Your task to perform on an android device: all mails in gmail Image 0: 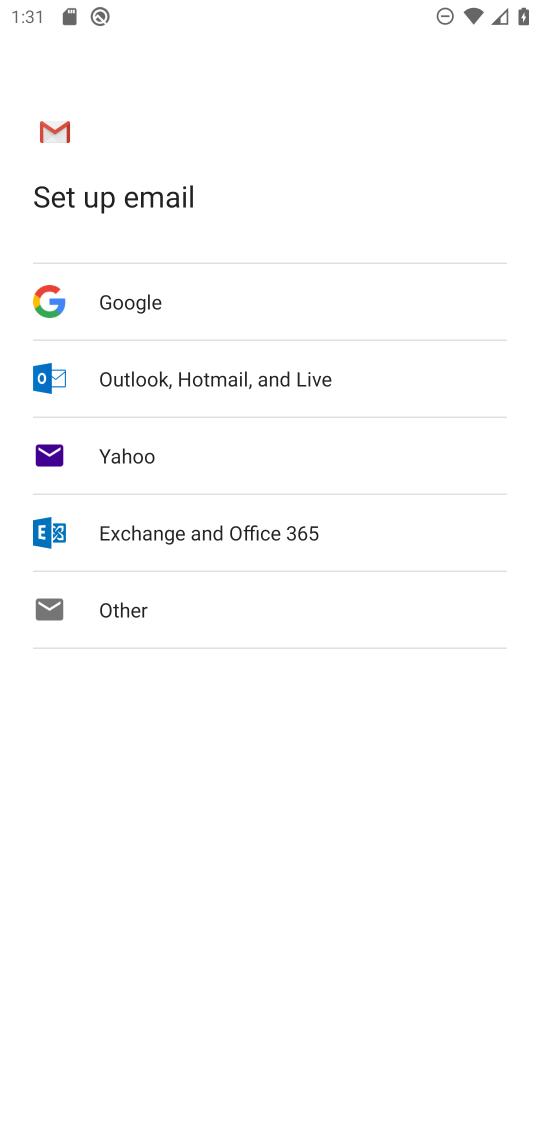
Step 0: press back button
Your task to perform on an android device: all mails in gmail Image 1: 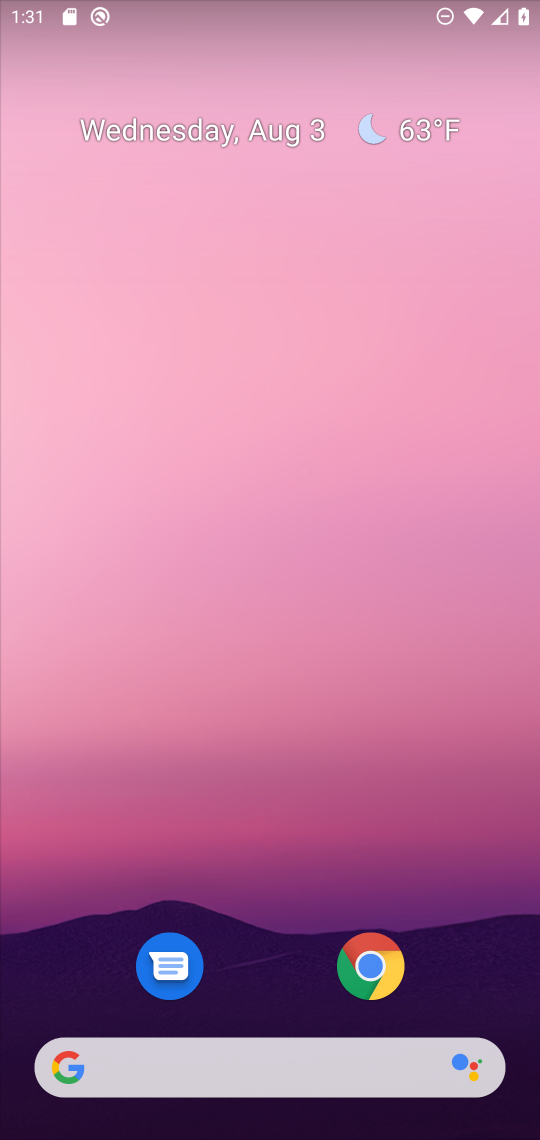
Step 1: drag from (269, 968) to (280, 345)
Your task to perform on an android device: all mails in gmail Image 2: 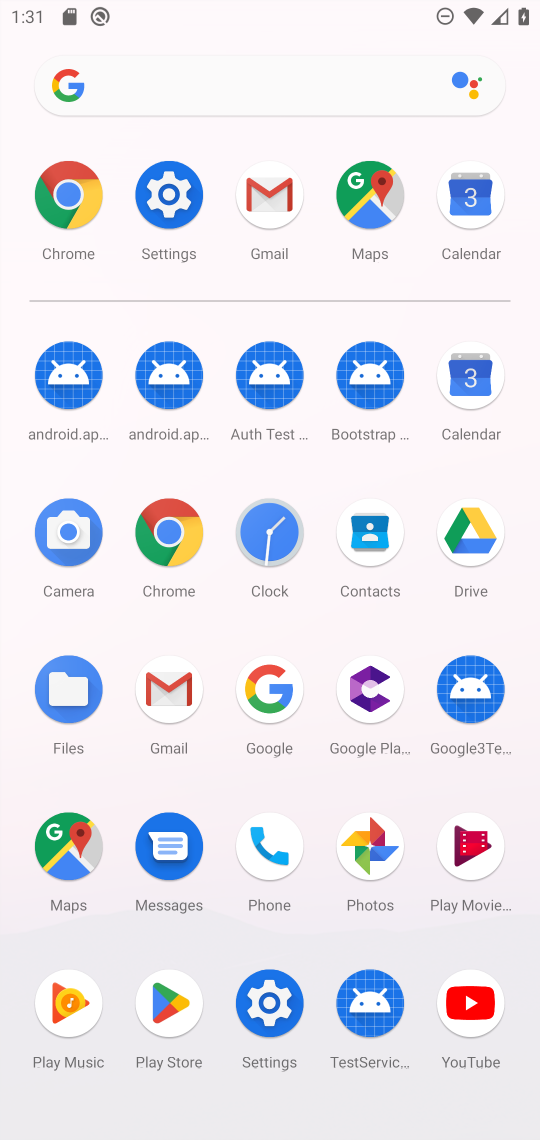
Step 2: click (289, 202)
Your task to perform on an android device: all mails in gmail Image 3: 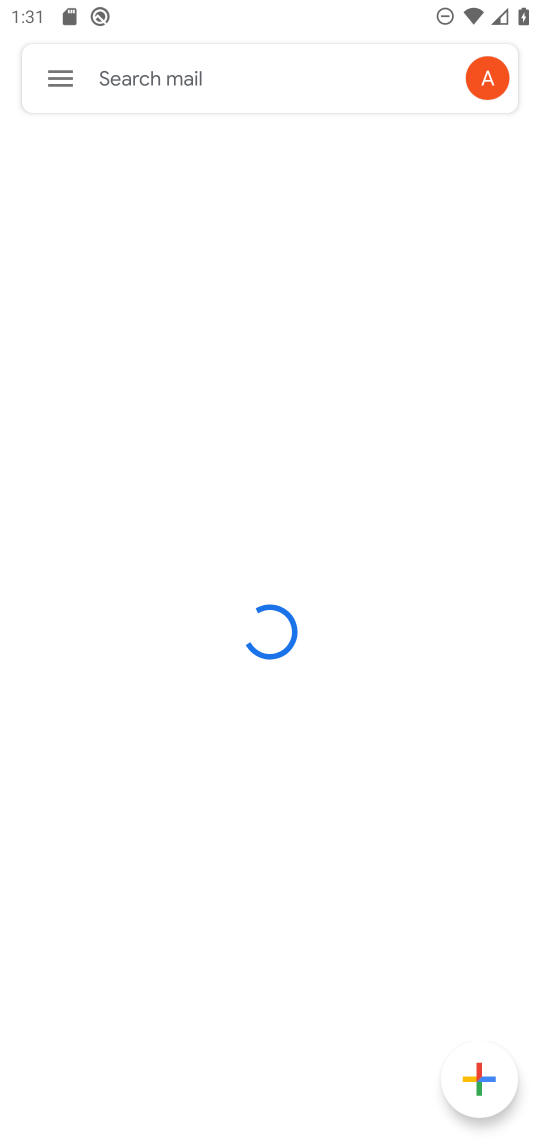
Step 3: click (54, 88)
Your task to perform on an android device: all mails in gmail Image 4: 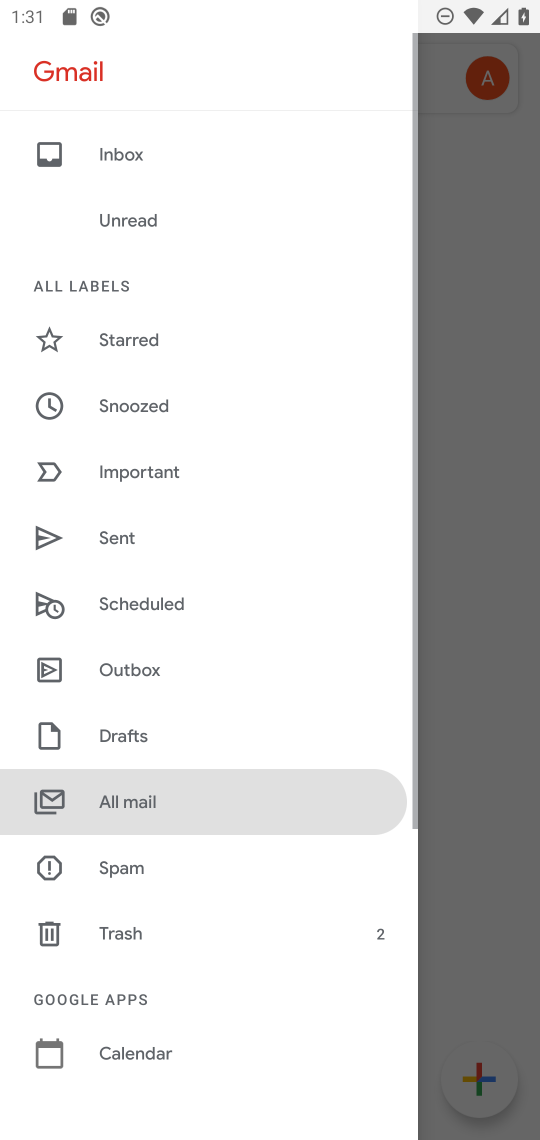
Step 4: click (202, 794)
Your task to perform on an android device: all mails in gmail Image 5: 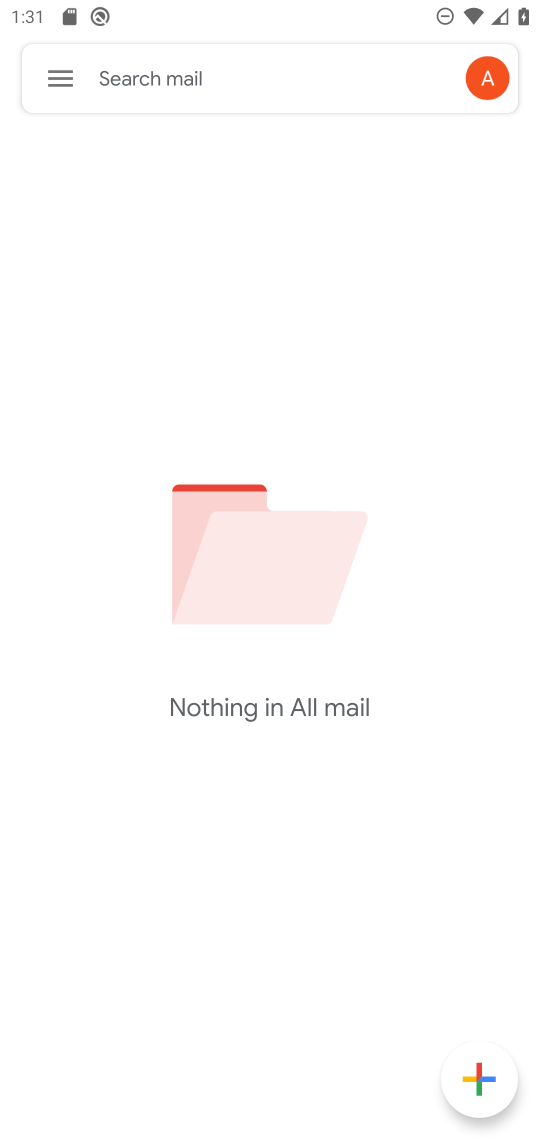
Step 5: task complete